Your task to perform on an android device: see creations saved in the google photos Image 0: 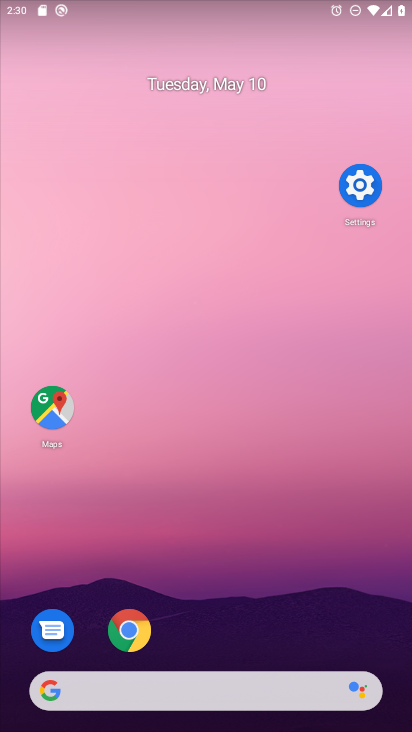
Step 0: drag from (308, 648) to (128, 202)
Your task to perform on an android device: see creations saved in the google photos Image 1: 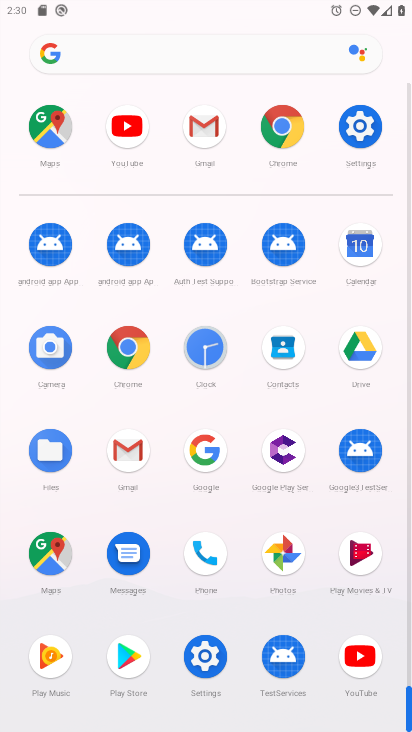
Step 1: click (289, 560)
Your task to perform on an android device: see creations saved in the google photos Image 2: 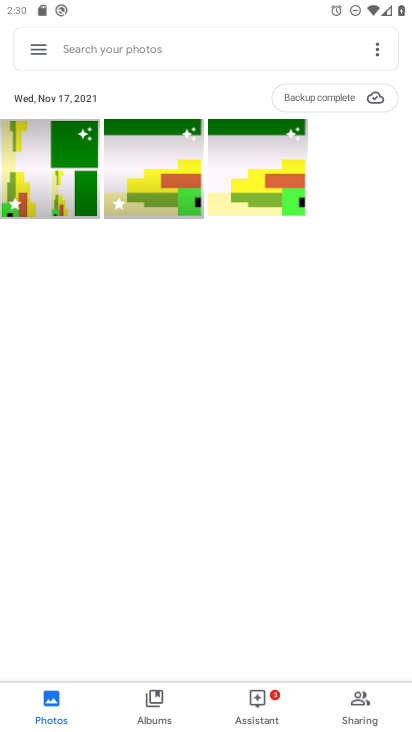
Step 2: task complete